Your task to perform on an android device: Open network settings Image 0: 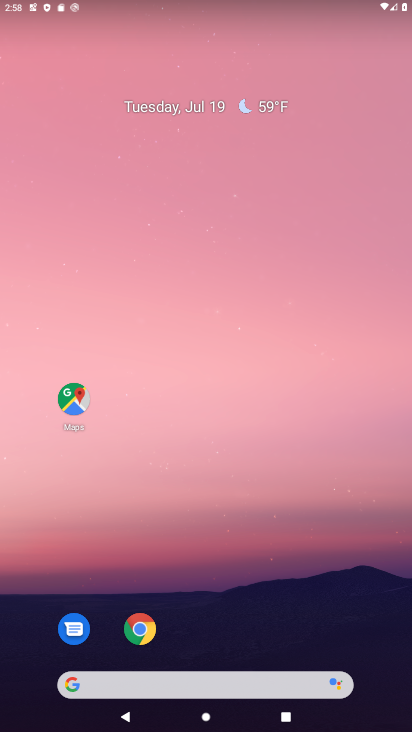
Step 0: drag from (214, 620) to (172, 213)
Your task to perform on an android device: Open network settings Image 1: 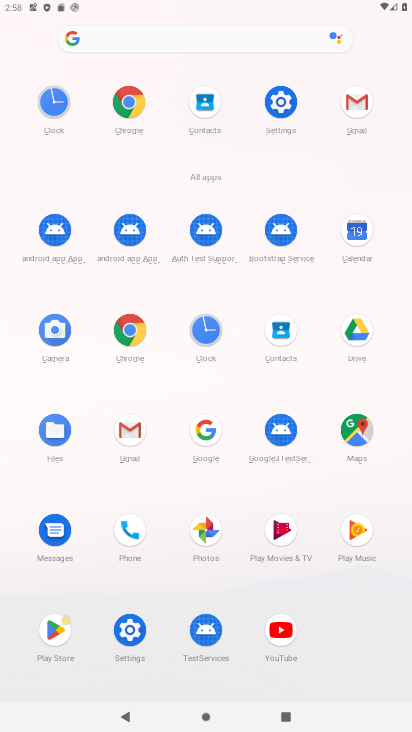
Step 1: click (285, 88)
Your task to perform on an android device: Open network settings Image 2: 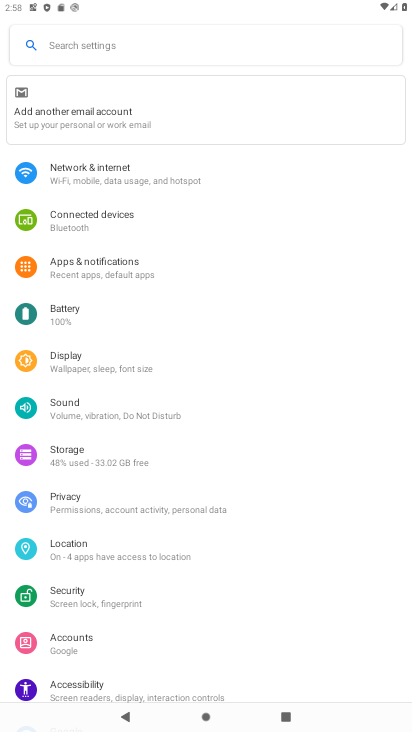
Step 2: click (107, 181)
Your task to perform on an android device: Open network settings Image 3: 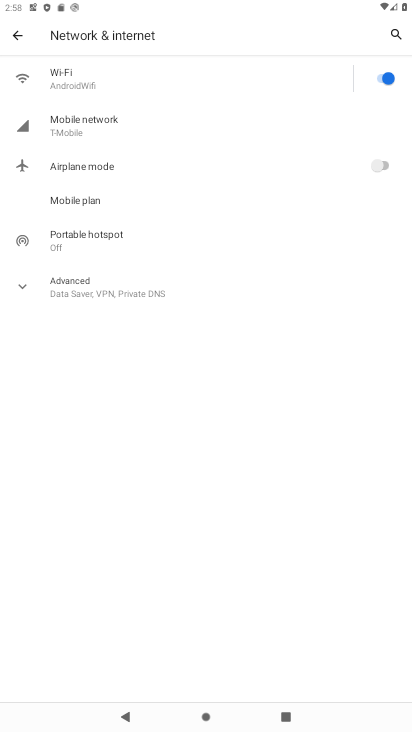
Step 3: task complete